Your task to perform on an android device: Go to Google maps Image 0: 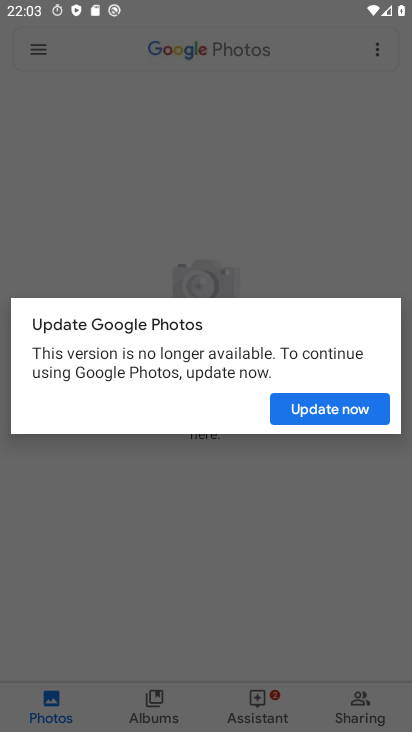
Step 0: press back button
Your task to perform on an android device: Go to Google maps Image 1: 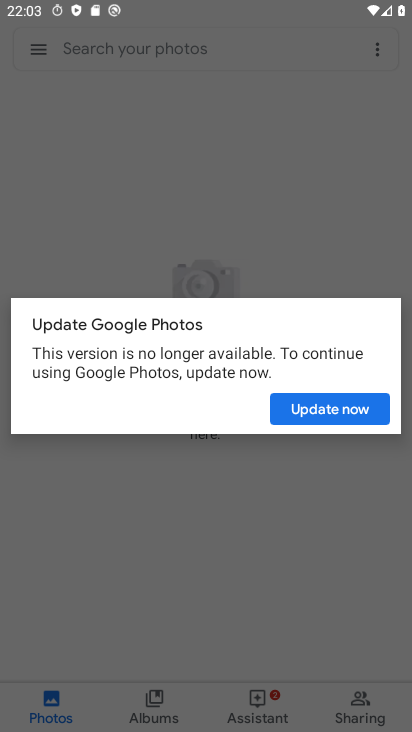
Step 1: press home button
Your task to perform on an android device: Go to Google maps Image 2: 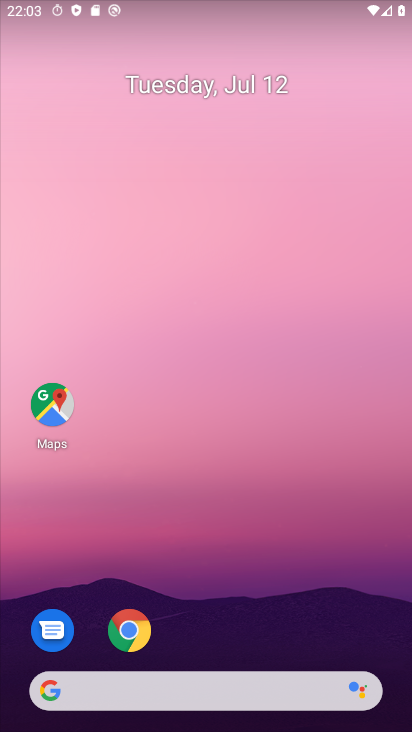
Step 2: click (45, 406)
Your task to perform on an android device: Go to Google maps Image 3: 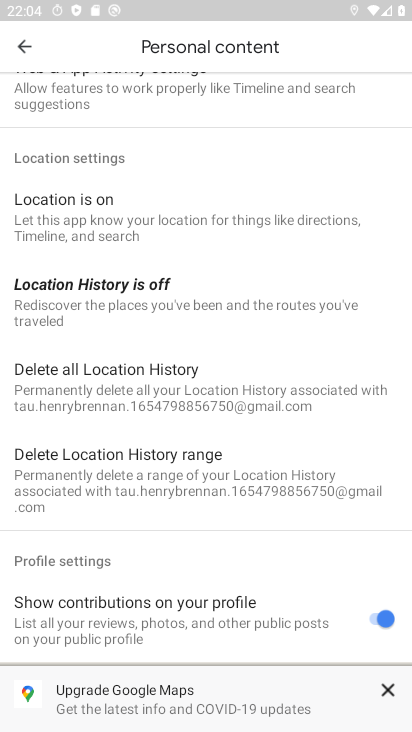
Step 3: click (18, 46)
Your task to perform on an android device: Go to Google maps Image 4: 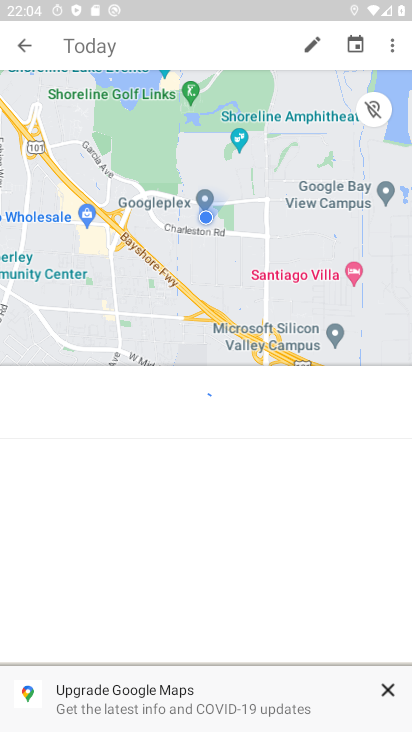
Step 4: click (21, 45)
Your task to perform on an android device: Go to Google maps Image 5: 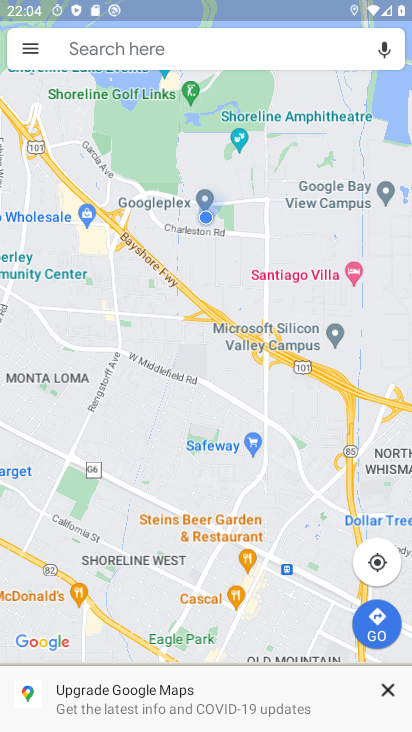
Step 5: task complete